Your task to perform on an android device: Is it going to rain tomorrow? Image 0: 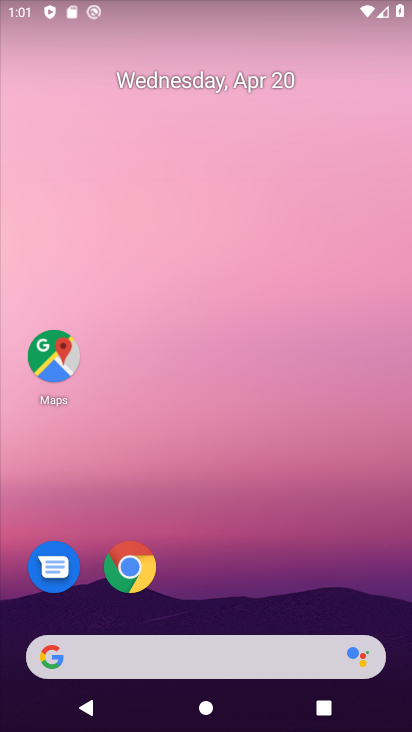
Step 0: drag from (256, 586) to (254, 14)
Your task to perform on an android device: Is it going to rain tomorrow? Image 1: 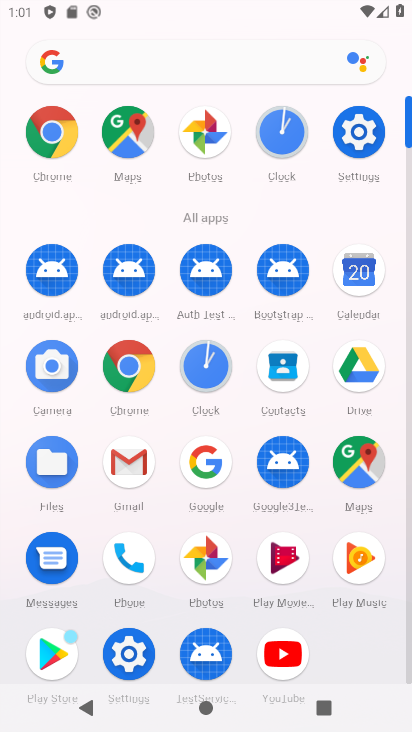
Step 1: click (118, 359)
Your task to perform on an android device: Is it going to rain tomorrow? Image 2: 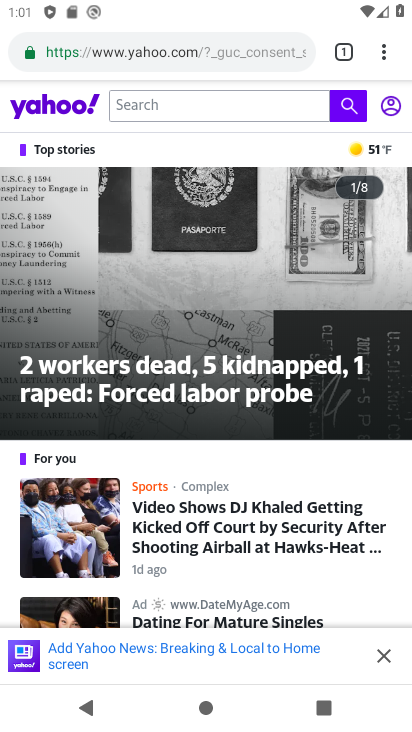
Step 2: drag from (385, 53) to (174, 98)
Your task to perform on an android device: Is it going to rain tomorrow? Image 3: 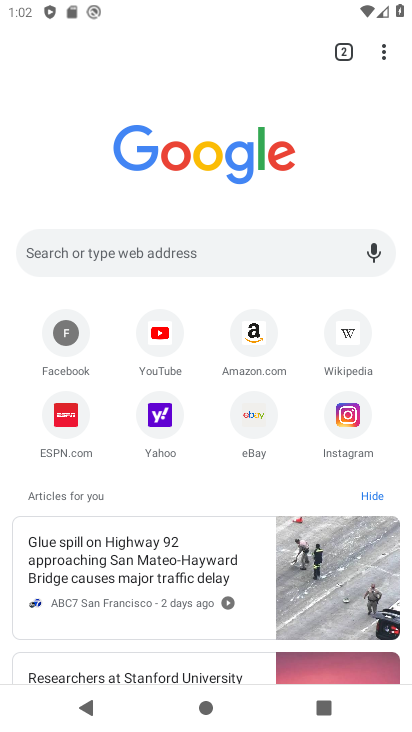
Step 3: click (245, 242)
Your task to perform on an android device: Is it going to rain tomorrow? Image 4: 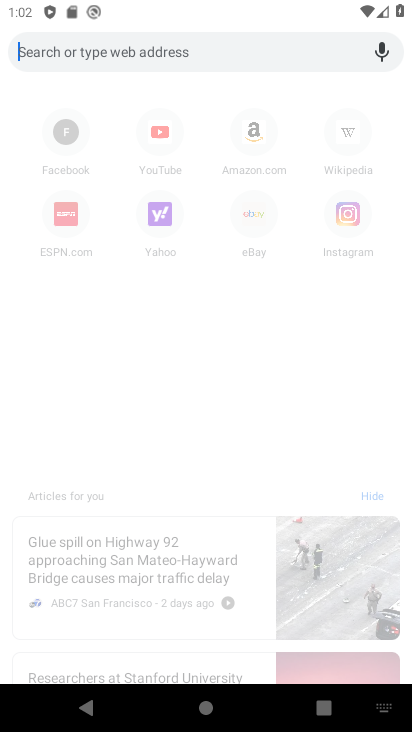
Step 4: type "Is it going to rain tomorrow?"
Your task to perform on an android device: Is it going to rain tomorrow? Image 5: 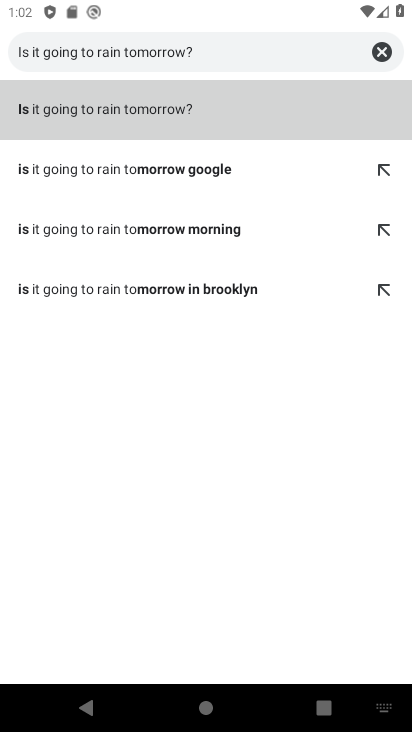
Step 5: click (102, 103)
Your task to perform on an android device: Is it going to rain tomorrow? Image 6: 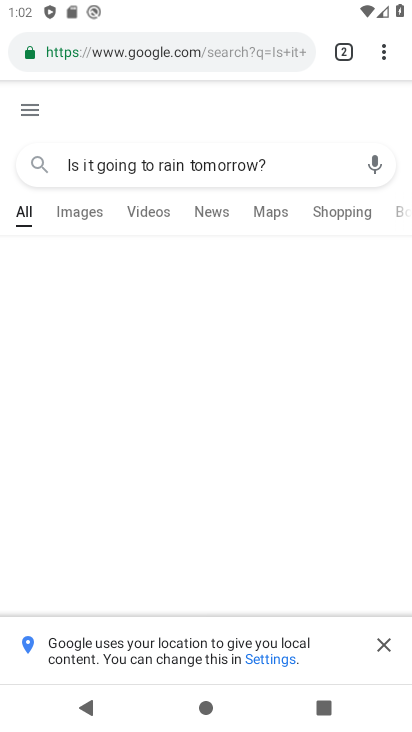
Step 6: task complete